Your task to perform on an android device: toggle improve location accuracy Image 0: 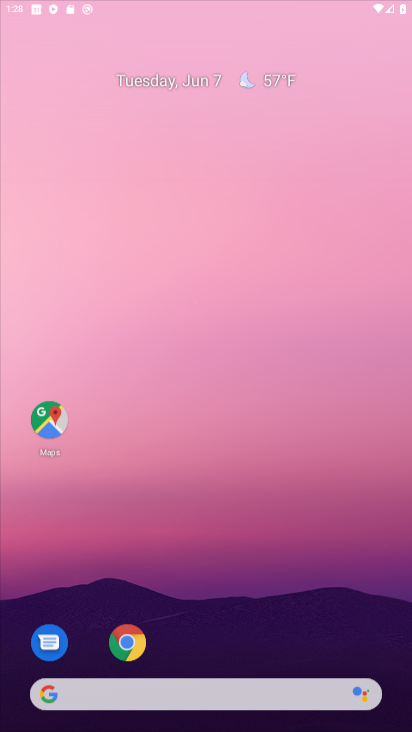
Step 0: click (140, 73)
Your task to perform on an android device: toggle improve location accuracy Image 1: 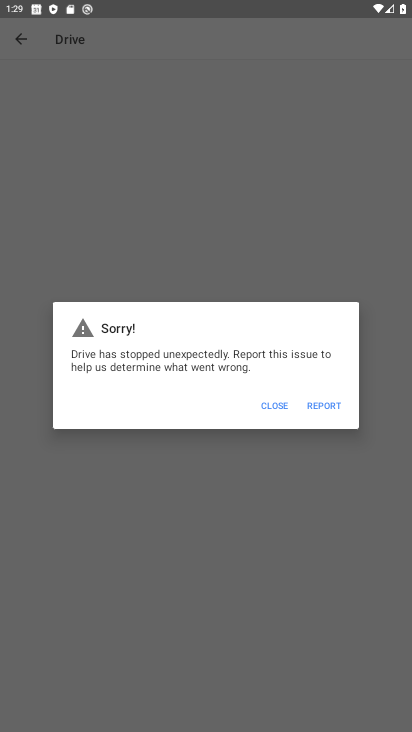
Step 1: click (275, 409)
Your task to perform on an android device: toggle improve location accuracy Image 2: 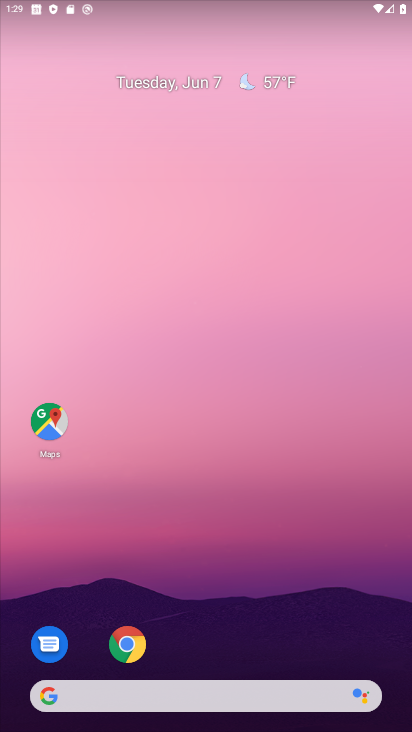
Step 2: drag from (221, 605) to (164, 82)
Your task to perform on an android device: toggle improve location accuracy Image 3: 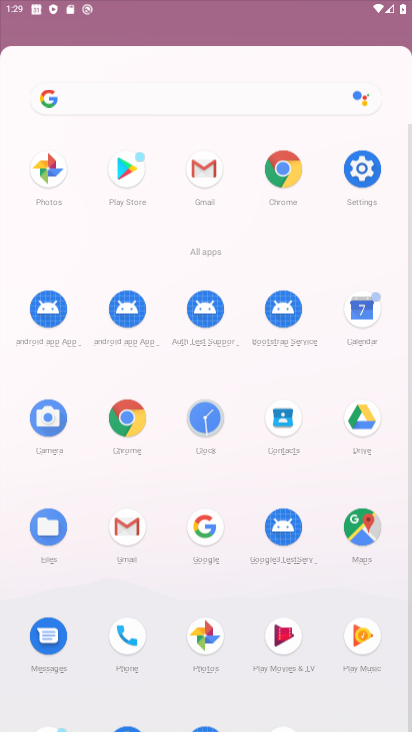
Step 3: drag from (200, 536) to (86, 28)
Your task to perform on an android device: toggle improve location accuracy Image 4: 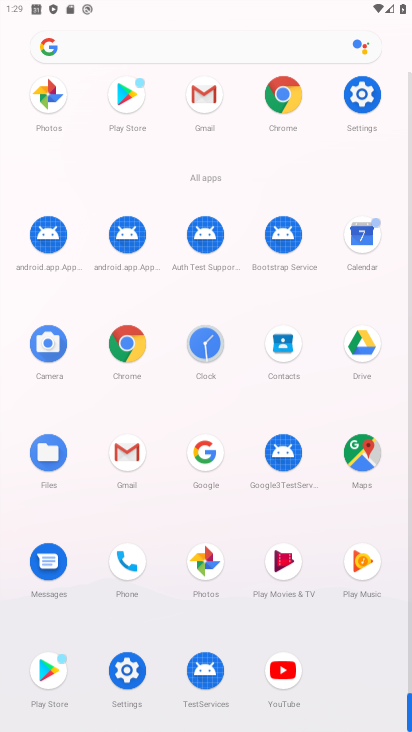
Step 4: drag from (205, 501) to (158, 127)
Your task to perform on an android device: toggle improve location accuracy Image 5: 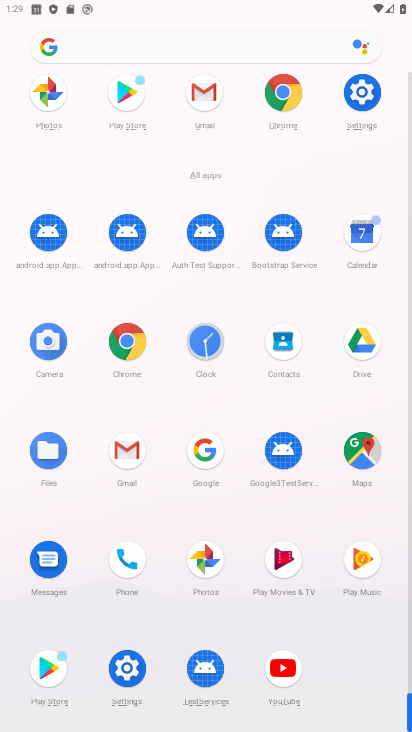
Step 5: click (356, 115)
Your task to perform on an android device: toggle improve location accuracy Image 6: 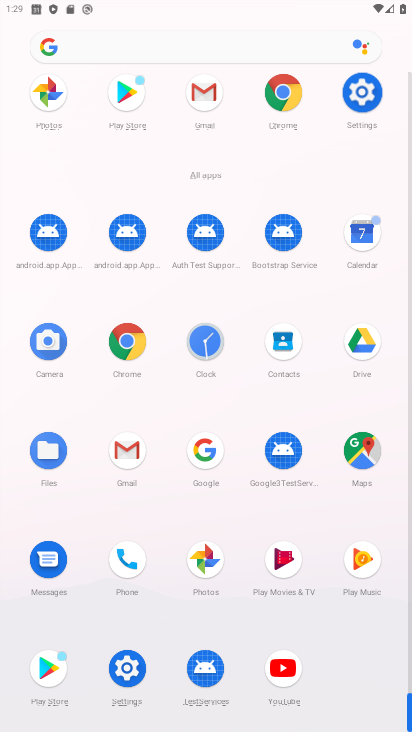
Step 6: click (356, 113)
Your task to perform on an android device: toggle improve location accuracy Image 7: 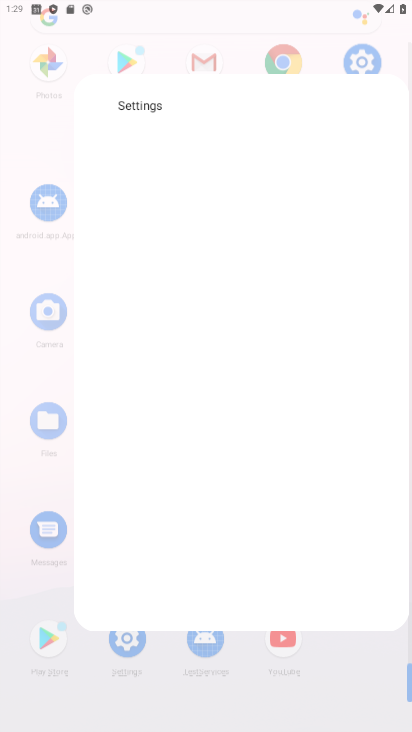
Step 7: click (356, 112)
Your task to perform on an android device: toggle improve location accuracy Image 8: 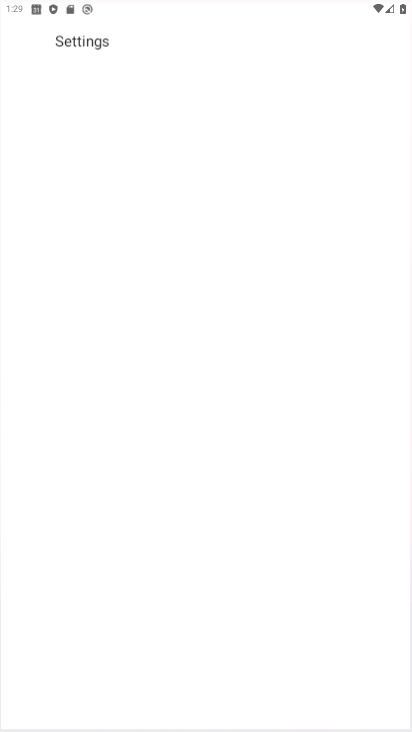
Step 8: click (357, 113)
Your task to perform on an android device: toggle improve location accuracy Image 9: 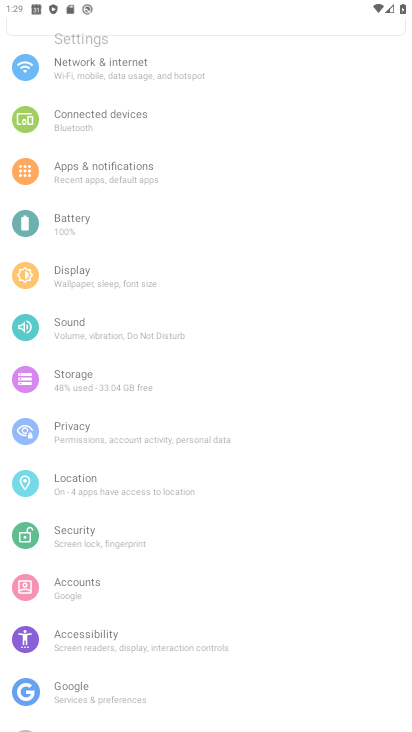
Step 9: click (357, 113)
Your task to perform on an android device: toggle improve location accuracy Image 10: 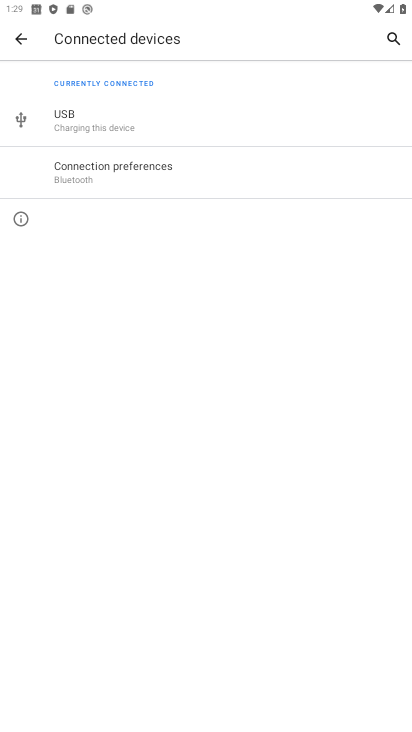
Step 10: click (23, 35)
Your task to perform on an android device: toggle improve location accuracy Image 11: 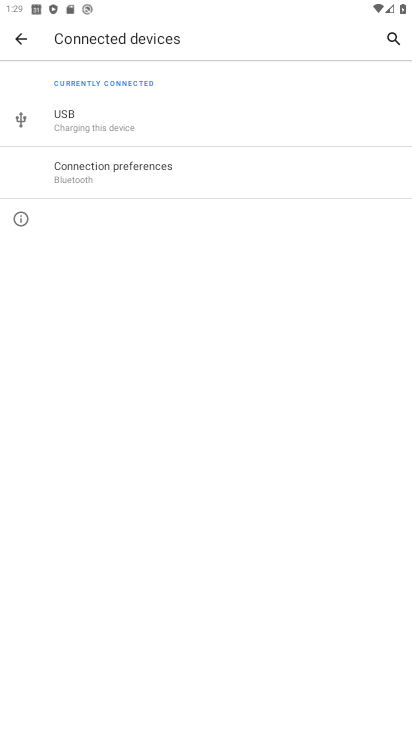
Step 11: click (12, 42)
Your task to perform on an android device: toggle improve location accuracy Image 12: 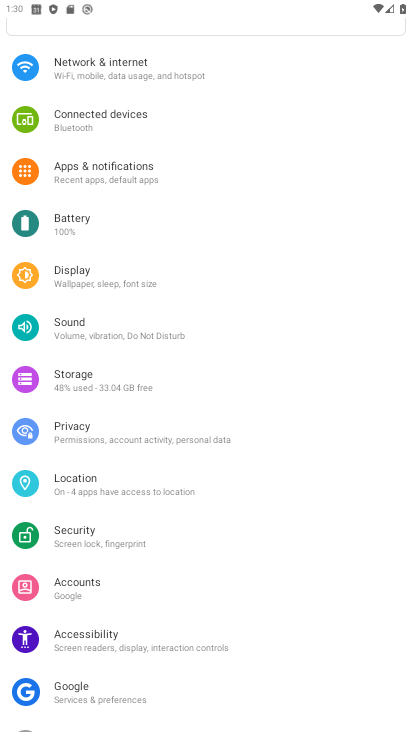
Step 12: click (79, 432)
Your task to perform on an android device: toggle improve location accuracy Image 13: 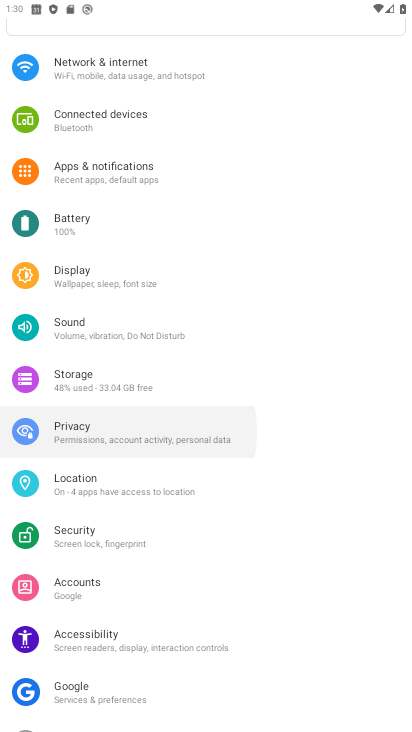
Step 13: click (79, 432)
Your task to perform on an android device: toggle improve location accuracy Image 14: 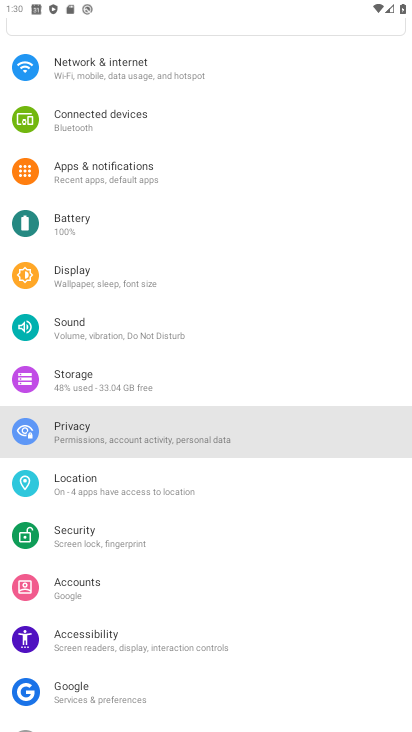
Step 14: click (79, 431)
Your task to perform on an android device: toggle improve location accuracy Image 15: 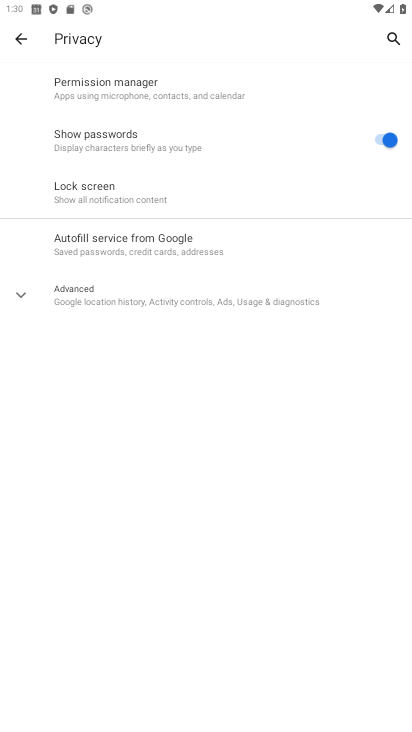
Step 15: click (19, 46)
Your task to perform on an android device: toggle improve location accuracy Image 16: 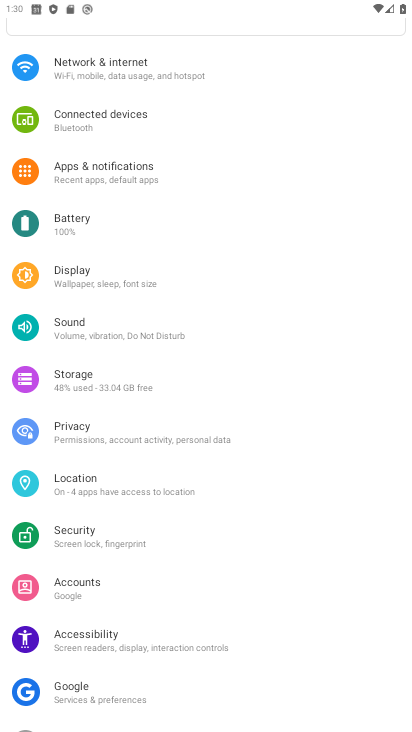
Step 16: click (72, 485)
Your task to perform on an android device: toggle improve location accuracy Image 17: 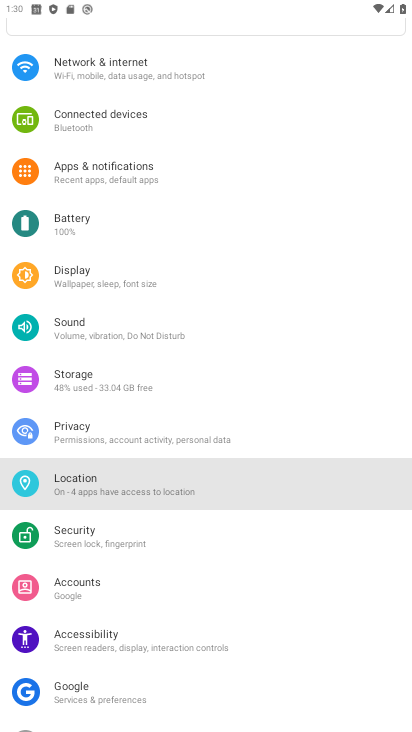
Step 17: click (72, 485)
Your task to perform on an android device: toggle improve location accuracy Image 18: 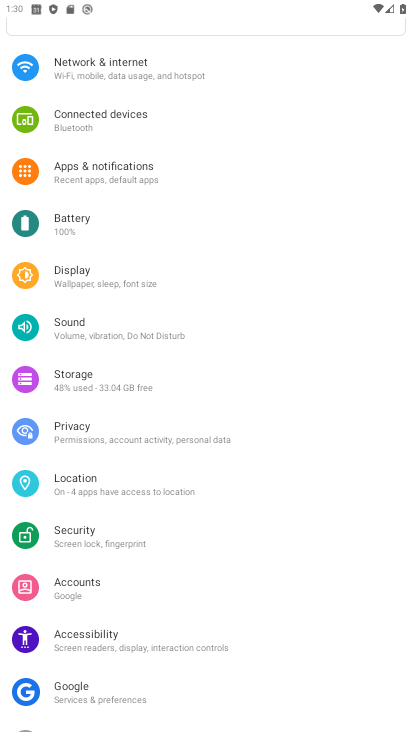
Step 18: click (72, 485)
Your task to perform on an android device: toggle improve location accuracy Image 19: 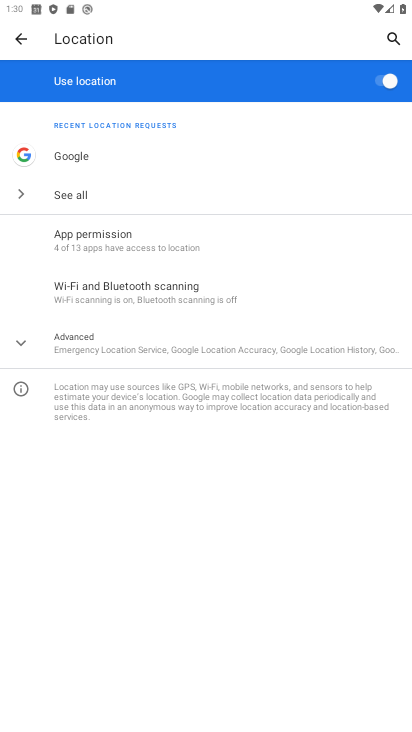
Step 19: click (104, 344)
Your task to perform on an android device: toggle improve location accuracy Image 20: 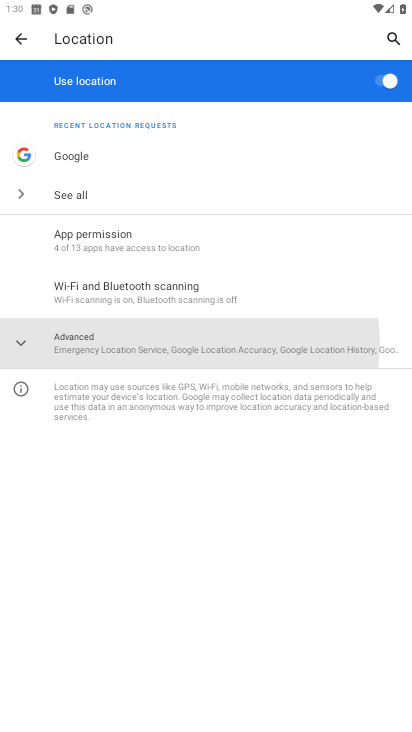
Step 20: click (102, 343)
Your task to perform on an android device: toggle improve location accuracy Image 21: 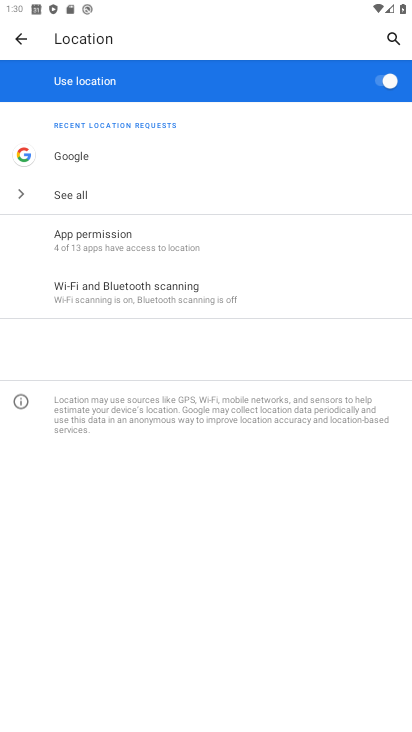
Step 21: click (103, 343)
Your task to perform on an android device: toggle improve location accuracy Image 22: 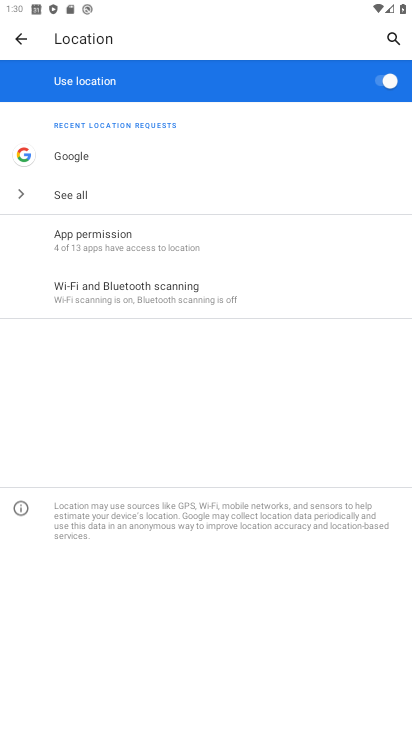
Step 22: click (103, 343)
Your task to perform on an android device: toggle improve location accuracy Image 23: 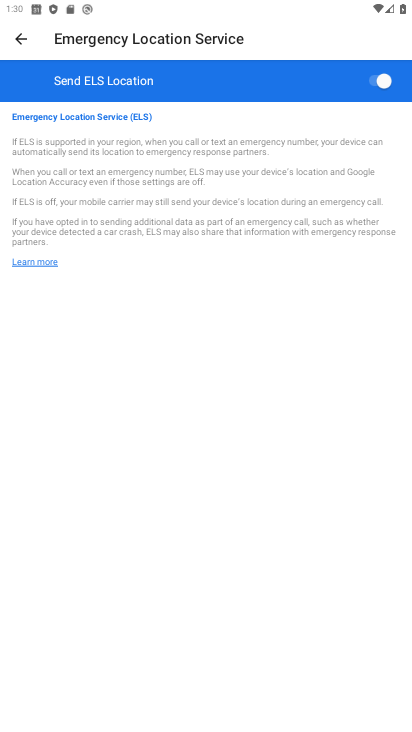
Step 23: click (9, 36)
Your task to perform on an android device: toggle improve location accuracy Image 24: 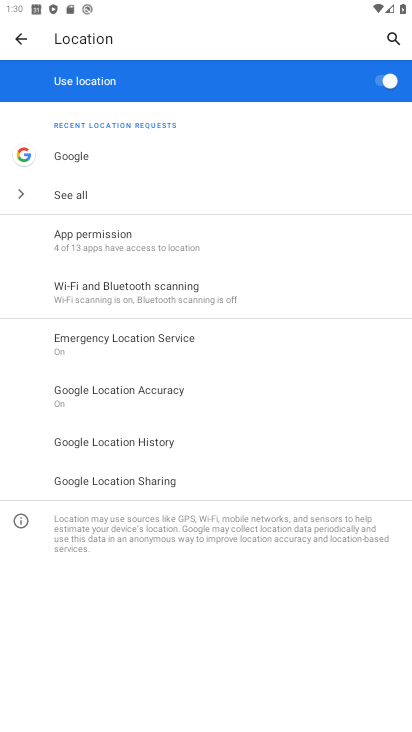
Step 24: click (131, 389)
Your task to perform on an android device: toggle improve location accuracy Image 25: 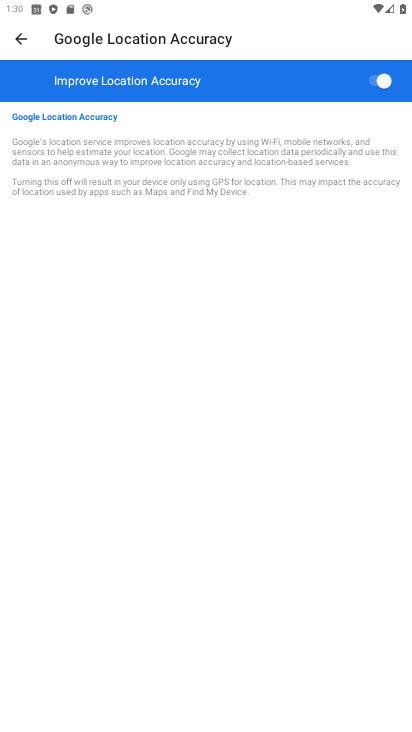
Step 25: task complete